Your task to perform on an android device: What's the weather going to be tomorrow? Image 0: 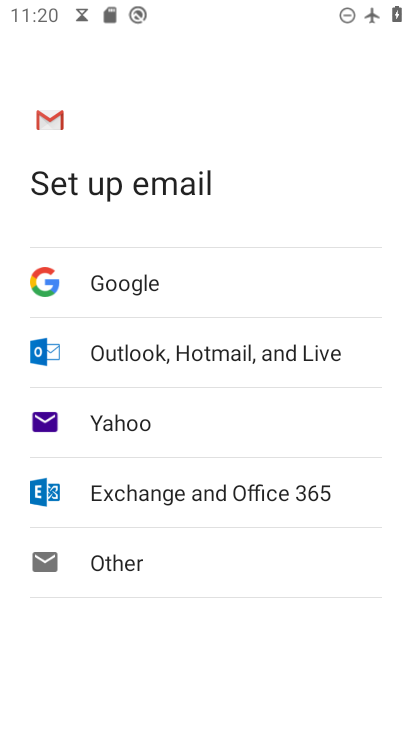
Step 0: press back button
Your task to perform on an android device: What's the weather going to be tomorrow? Image 1: 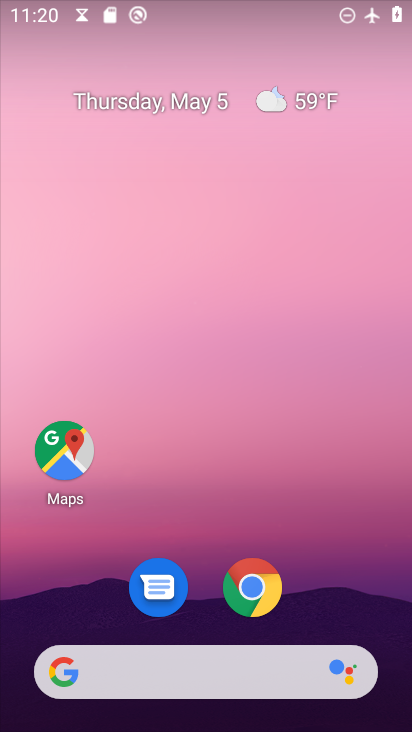
Step 1: click (248, 588)
Your task to perform on an android device: What's the weather going to be tomorrow? Image 2: 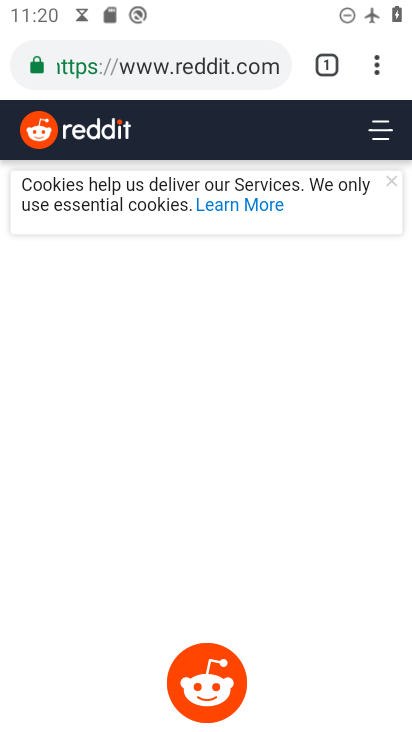
Step 2: click (160, 59)
Your task to perform on an android device: What's the weather going to be tomorrow? Image 3: 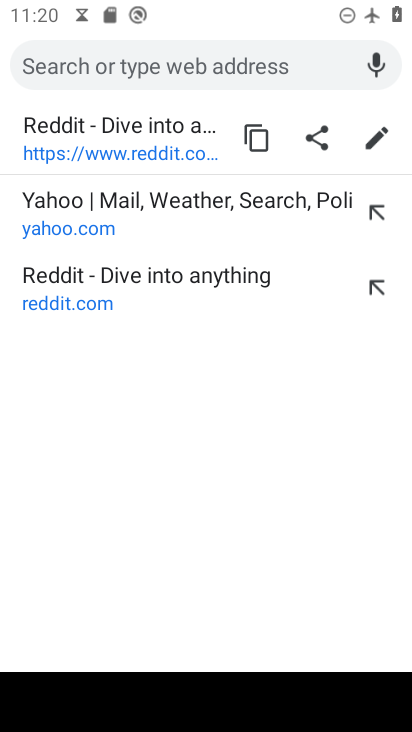
Step 3: type "What's the weather going to be tomorrow"
Your task to perform on an android device: What's the weather going to be tomorrow? Image 4: 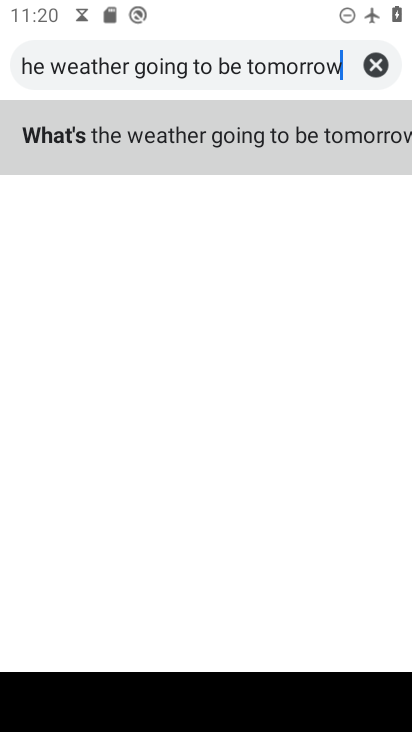
Step 4: click (212, 133)
Your task to perform on an android device: What's the weather going to be tomorrow? Image 5: 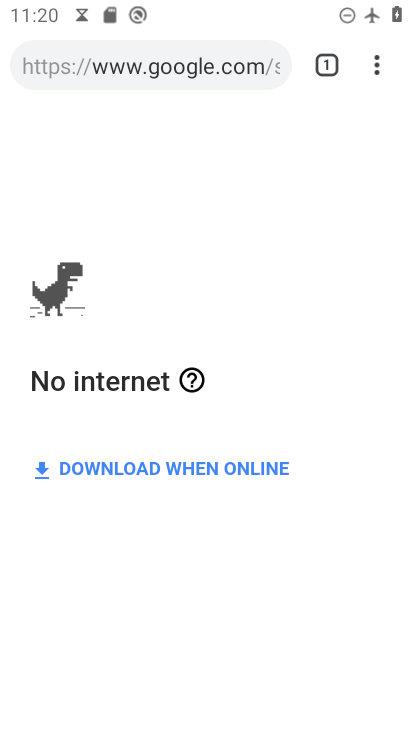
Step 5: task complete